Your task to perform on an android device: Turn on the flashlight Image 0: 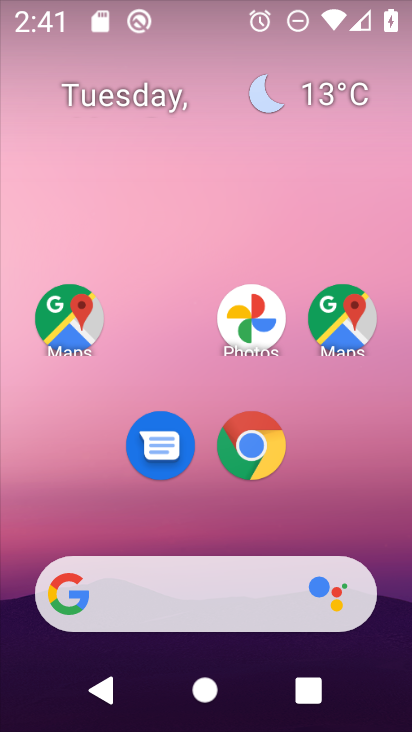
Step 0: drag from (214, 32) to (220, 382)
Your task to perform on an android device: Turn on the flashlight Image 1: 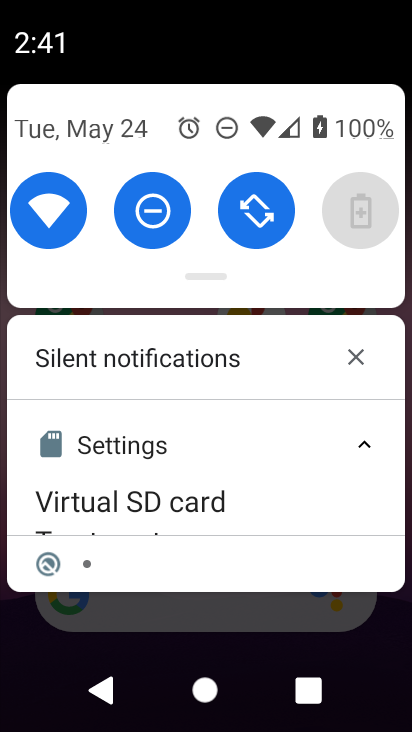
Step 1: drag from (200, 105) to (220, 369)
Your task to perform on an android device: Turn on the flashlight Image 2: 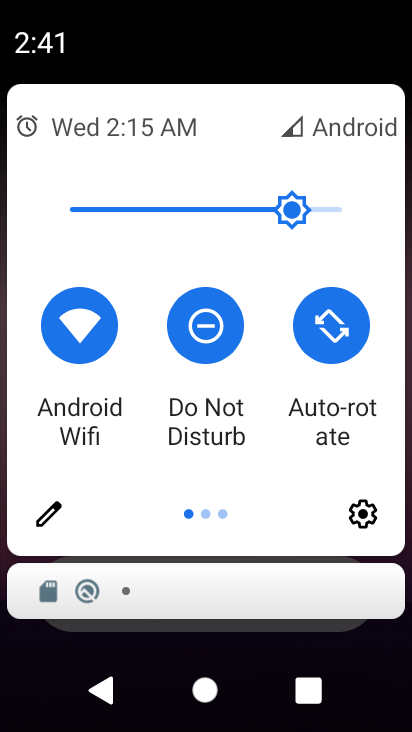
Step 2: click (65, 525)
Your task to perform on an android device: Turn on the flashlight Image 3: 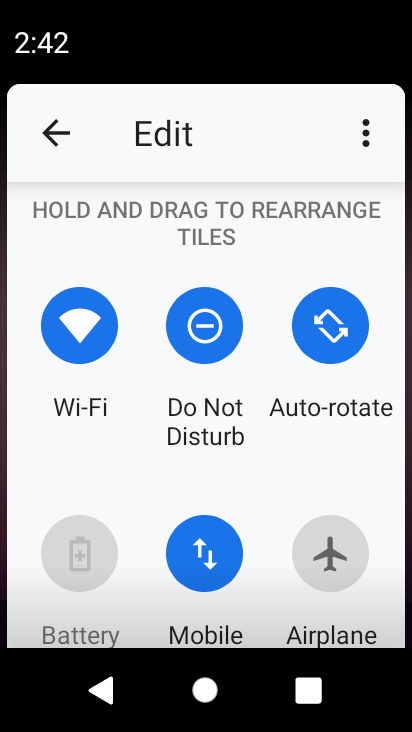
Step 3: task complete